Your task to perform on an android device: Go to battery settings Image 0: 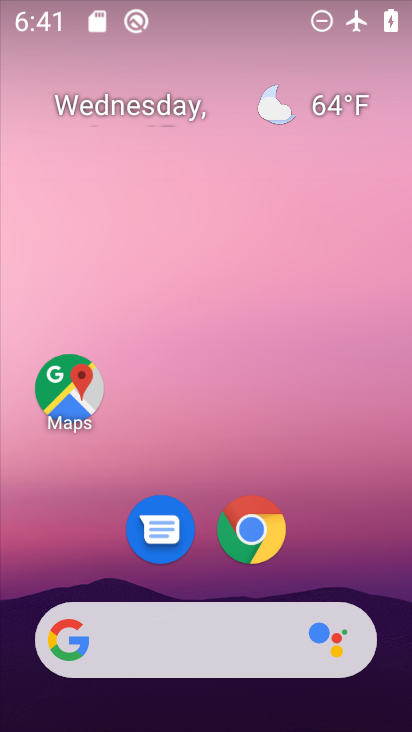
Step 0: drag from (231, 232) to (257, 135)
Your task to perform on an android device: Go to battery settings Image 1: 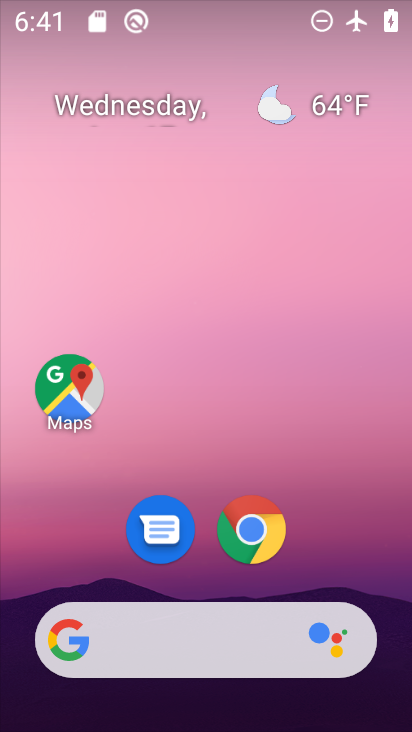
Step 1: drag from (199, 441) to (201, 230)
Your task to perform on an android device: Go to battery settings Image 2: 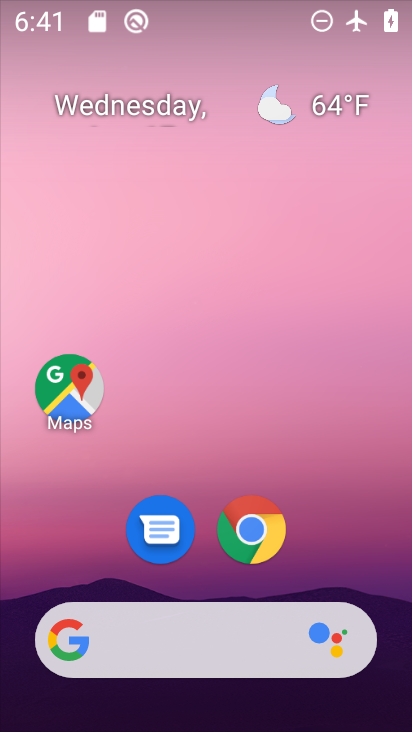
Step 2: drag from (213, 519) to (251, 87)
Your task to perform on an android device: Go to battery settings Image 3: 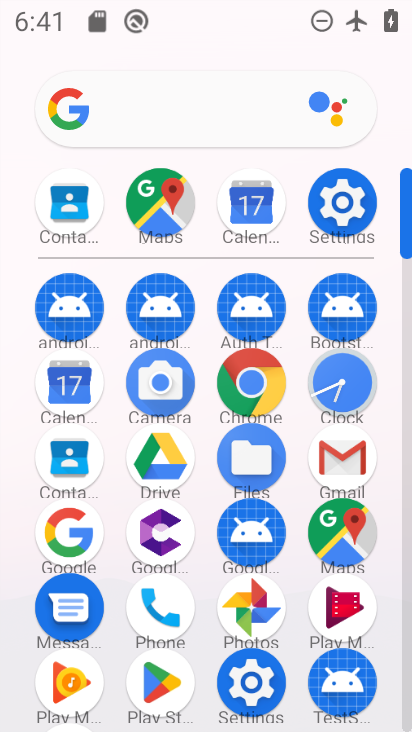
Step 3: click (344, 207)
Your task to perform on an android device: Go to battery settings Image 4: 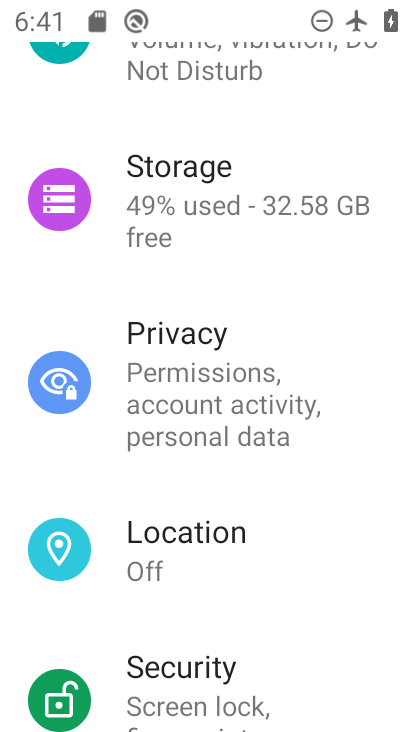
Step 4: drag from (261, 347) to (240, 701)
Your task to perform on an android device: Go to battery settings Image 5: 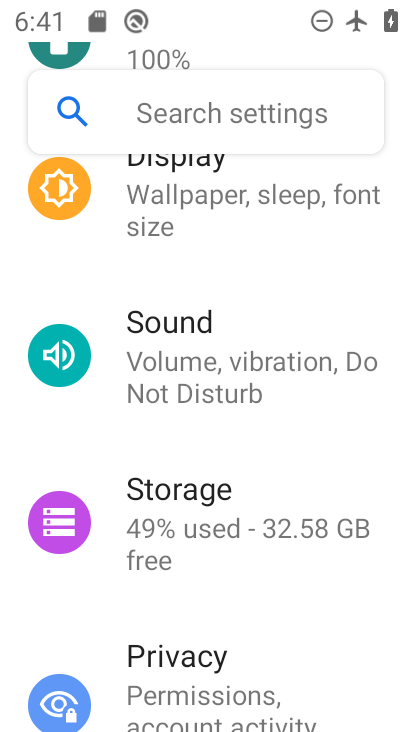
Step 5: drag from (301, 325) to (240, 625)
Your task to perform on an android device: Go to battery settings Image 6: 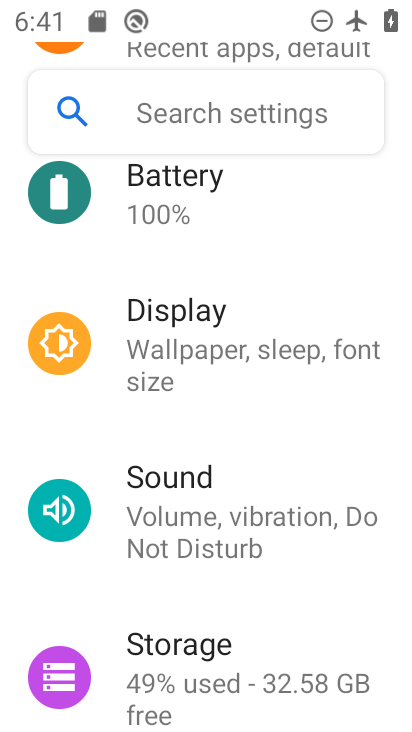
Step 6: click (210, 196)
Your task to perform on an android device: Go to battery settings Image 7: 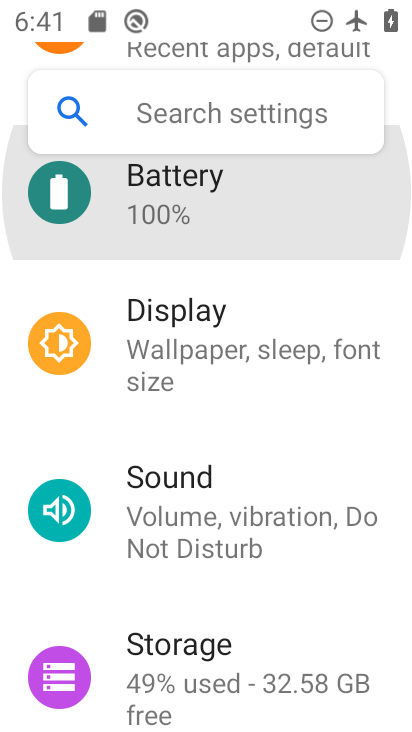
Step 7: click (190, 196)
Your task to perform on an android device: Go to battery settings Image 8: 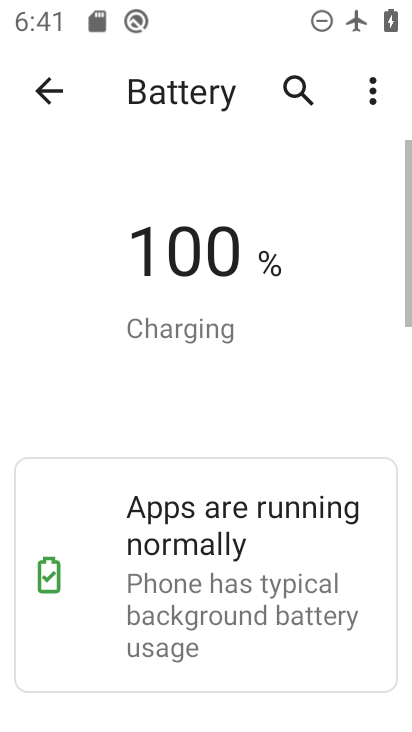
Step 8: task complete